Your task to perform on an android device: empty trash in the gmail app Image 0: 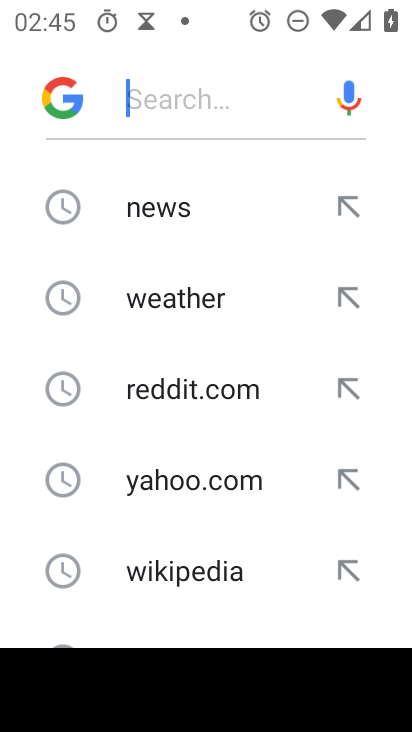
Step 0: press home button
Your task to perform on an android device: empty trash in the gmail app Image 1: 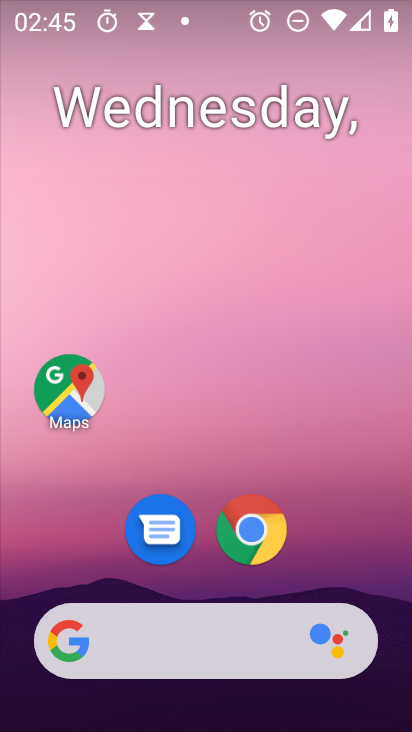
Step 1: drag from (310, 681) to (315, 258)
Your task to perform on an android device: empty trash in the gmail app Image 2: 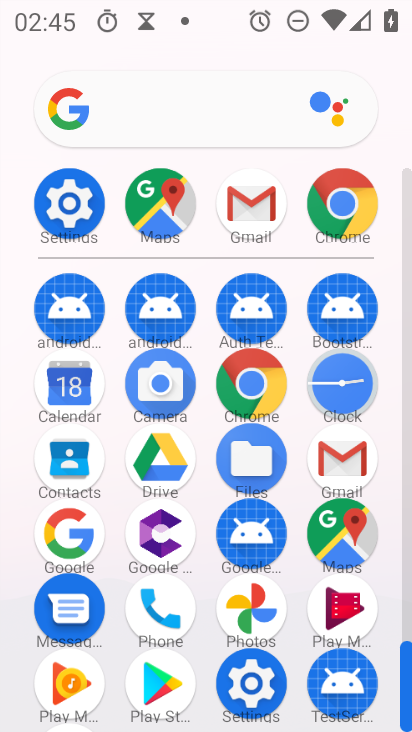
Step 2: click (351, 461)
Your task to perform on an android device: empty trash in the gmail app Image 3: 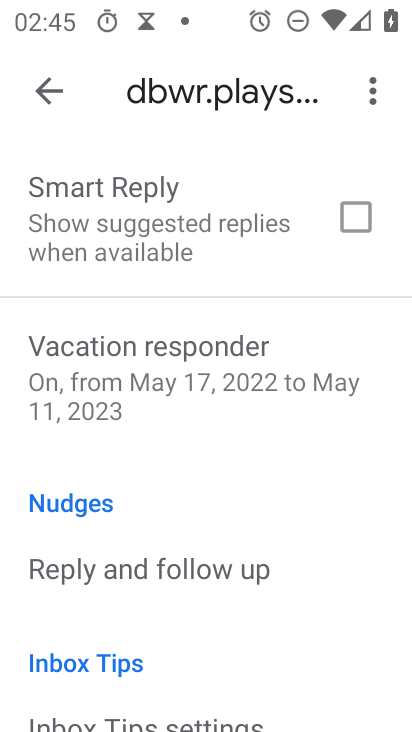
Step 3: drag from (213, 324) to (224, 724)
Your task to perform on an android device: empty trash in the gmail app Image 4: 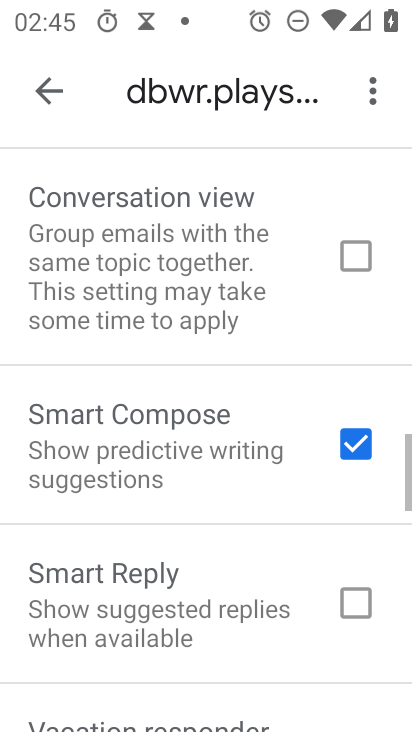
Step 4: drag from (178, 374) to (245, 681)
Your task to perform on an android device: empty trash in the gmail app Image 5: 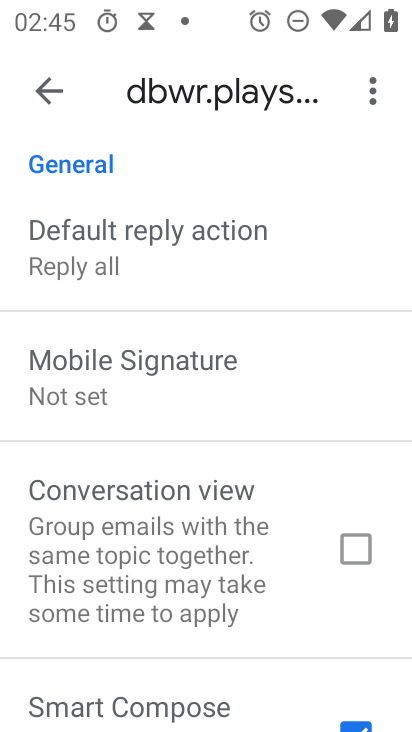
Step 5: press back button
Your task to perform on an android device: empty trash in the gmail app Image 6: 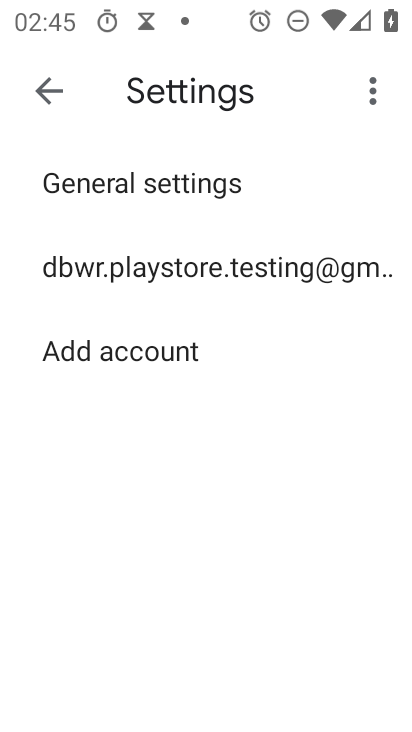
Step 6: press back button
Your task to perform on an android device: empty trash in the gmail app Image 7: 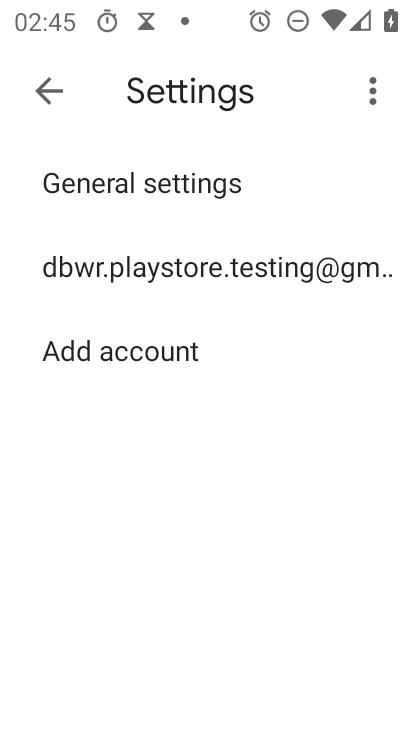
Step 7: press back button
Your task to perform on an android device: empty trash in the gmail app Image 8: 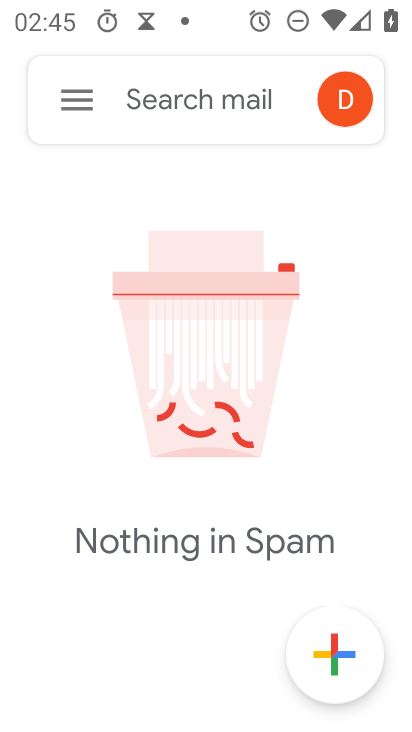
Step 8: click (83, 96)
Your task to perform on an android device: empty trash in the gmail app Image 9: 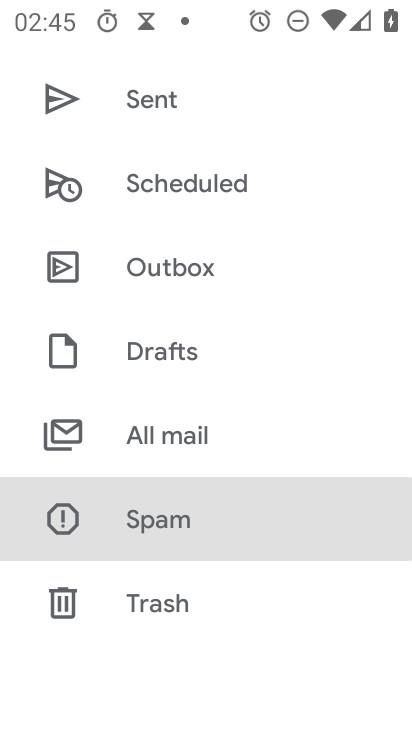
Step 9: click (144, 580)
Your task to perform on an android device: empty trash in the gmail app Image 10: 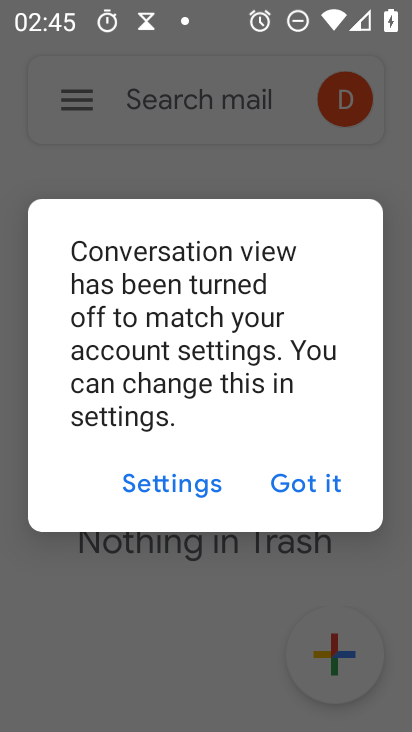
Step 10: click (285, 482)
Your task to perform on an android device: empty trash in the gmail app Image 11: 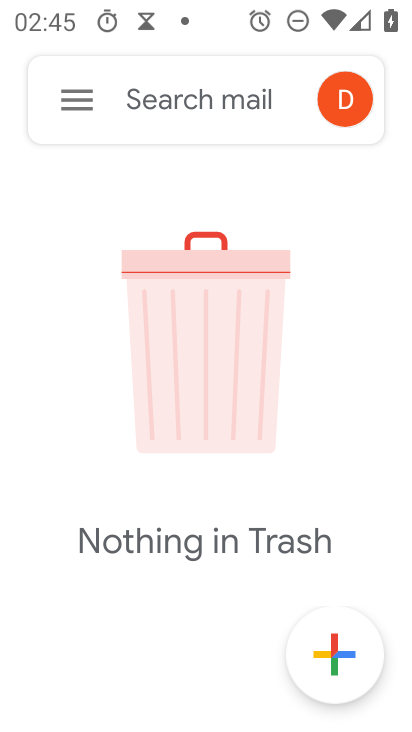
Step 11: task complete